Your task to perform on an android device: change the clock display to show seconds Image 0: 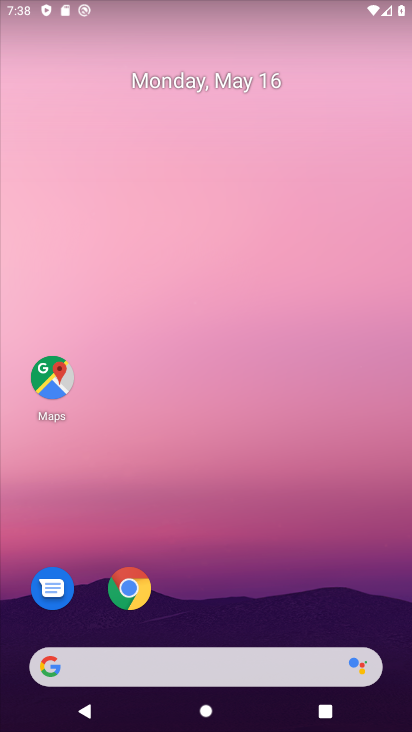
Step 0: drag from (226, 563) to (185, 8)
Your task to perform on an android device: change the clock display to show seconds Image 1: 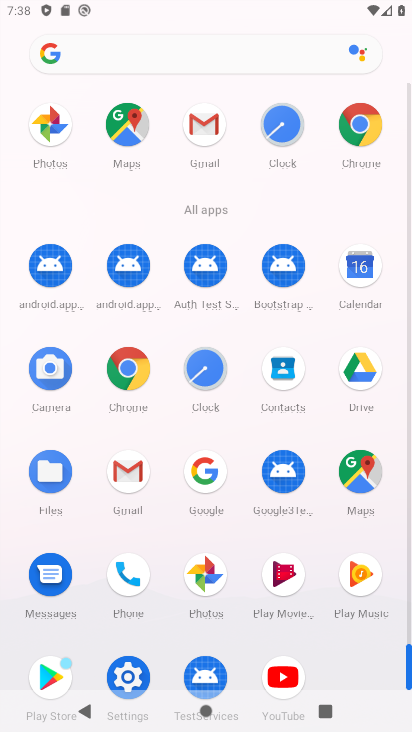
Step 1: drag from (7, 501) to (9, 221)
Your task to perform on an android device: change the clock display to show seconds Image 2: 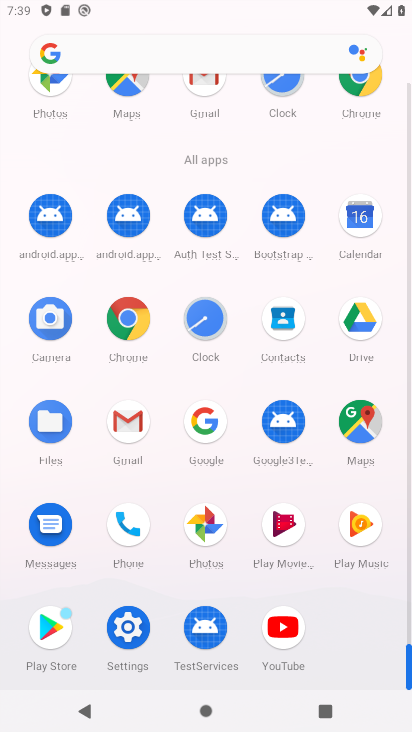
Step 2: click (202, 315)
Your task to perform on an android device: change the clock display to show seconds Image 3: 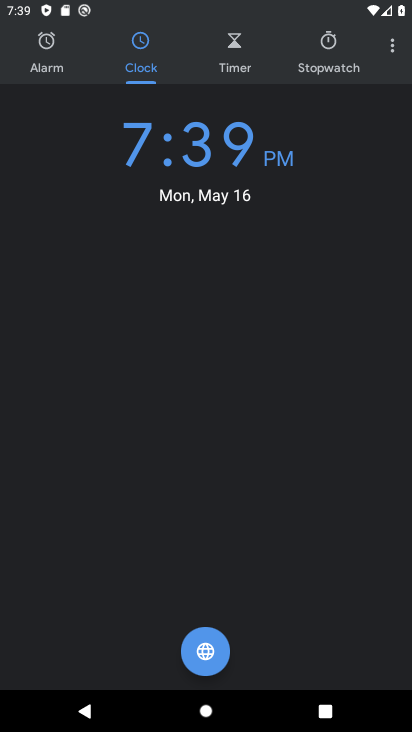
Step 3: drag from (389, 37) to (310, 88)
Your task to perform on an android device: change the clock display to show seconds Image 4: 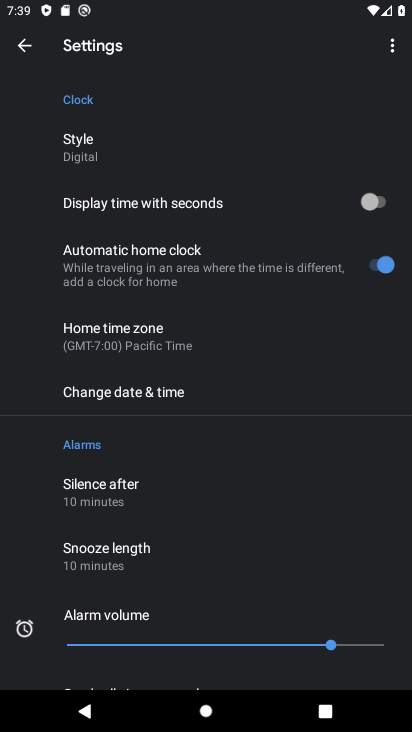
Step 4: click (365, 199)
Your task to perform on an android device: change the clock display to show seconds Image 5: 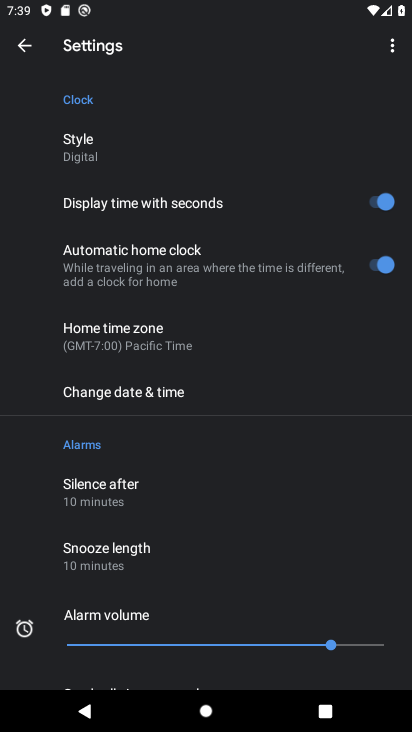
Step 5: task complete